Your task to perform on an android device: Go to Reddit.com Image 0: 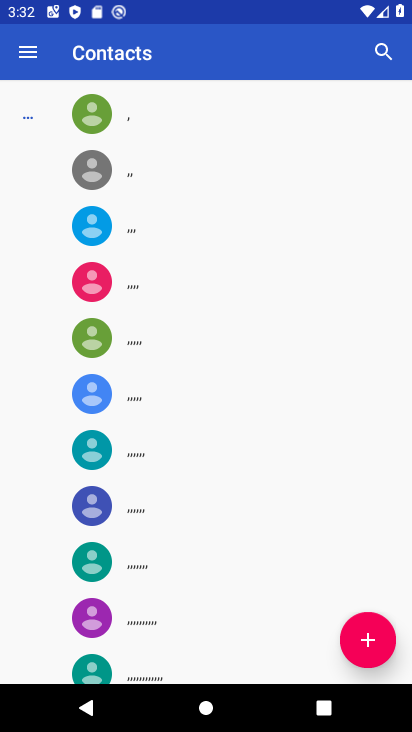
Step 0: press home button
Your task to perform on an android device: Go to Reddit.com Image 1: 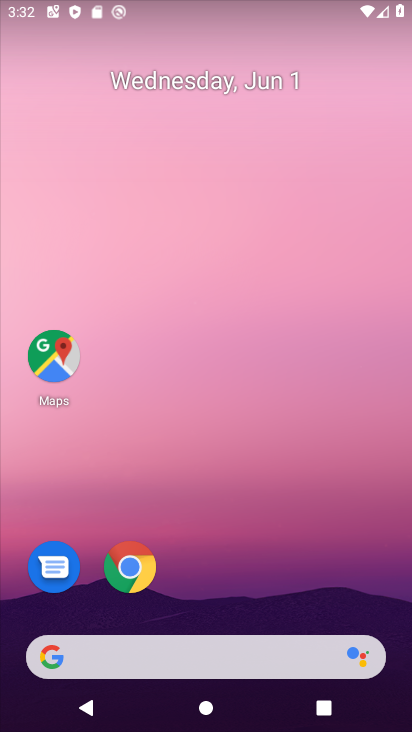
Step 1: drag from (206, 636) to (144, 203)
Your task to perform on an android device: Go to Reddit.com Image 2: 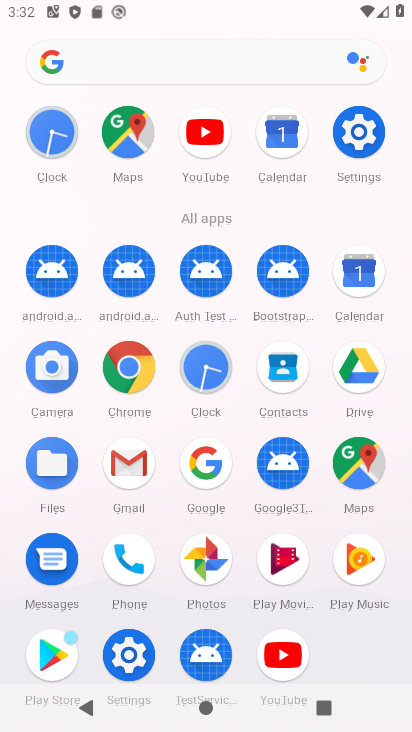
Step 2: click (212, 467)
Your task to perform on an android device: Go to Reddit.com Image 3: 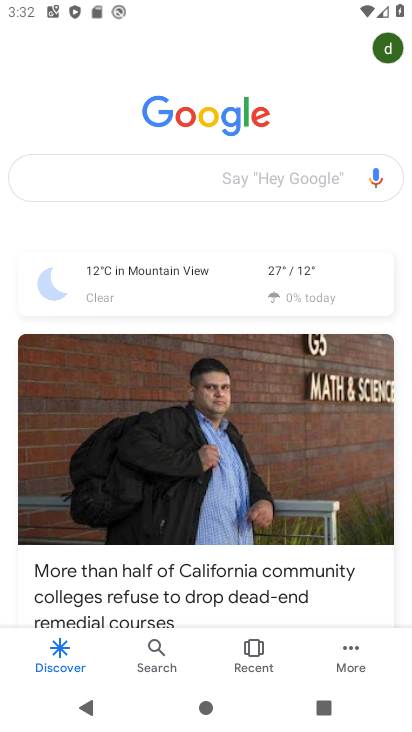
Step 3: click (177, 185)
Your task to perform on an android device: Go to Reddit.com Image 4: 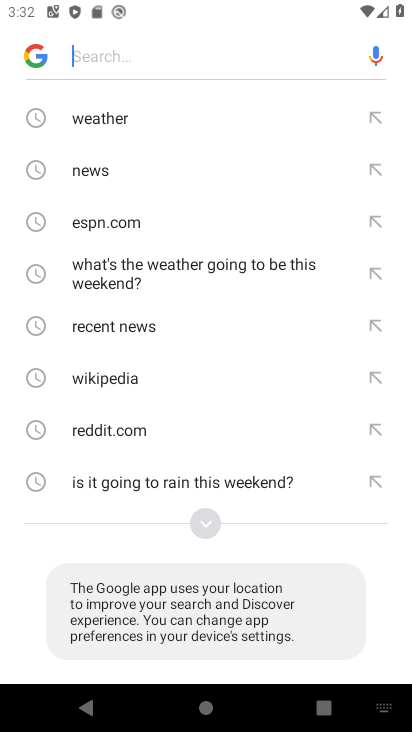
Step 4: click (112, 436)
Your task to perform on an android device: Go to Reddit.com Image 5: 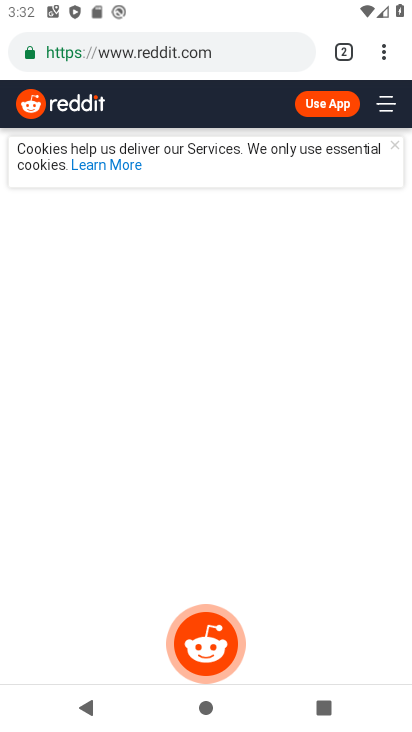
Step 5: task complete